Your task to perform on an android device: Do I have any events today? Image 0: 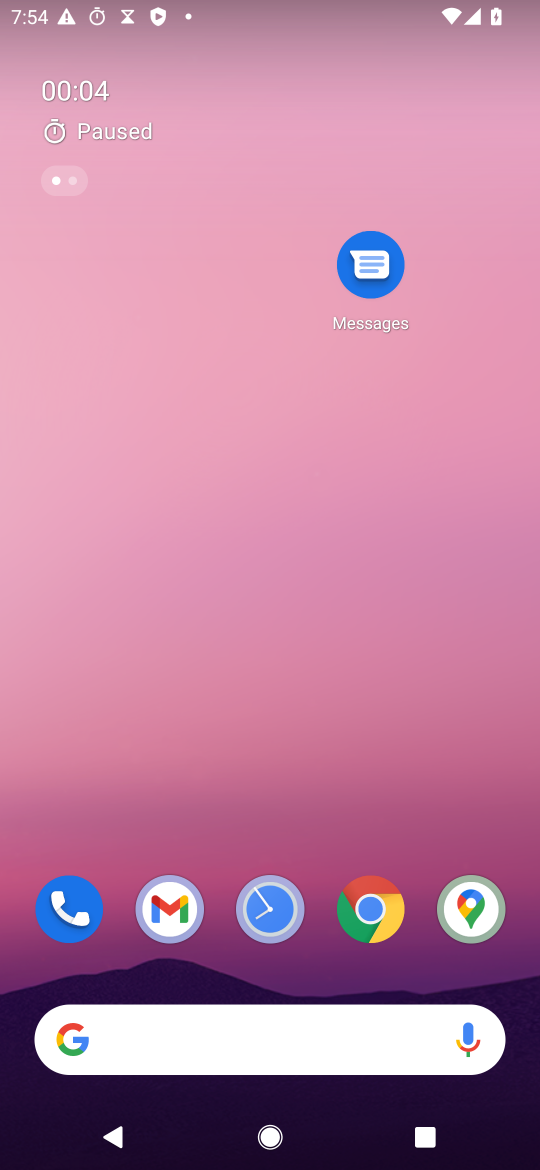
Step 0: drag from (201, 1013) to (423, 189)
Your task to perform on an android device: Do I have any events today? Image 1: 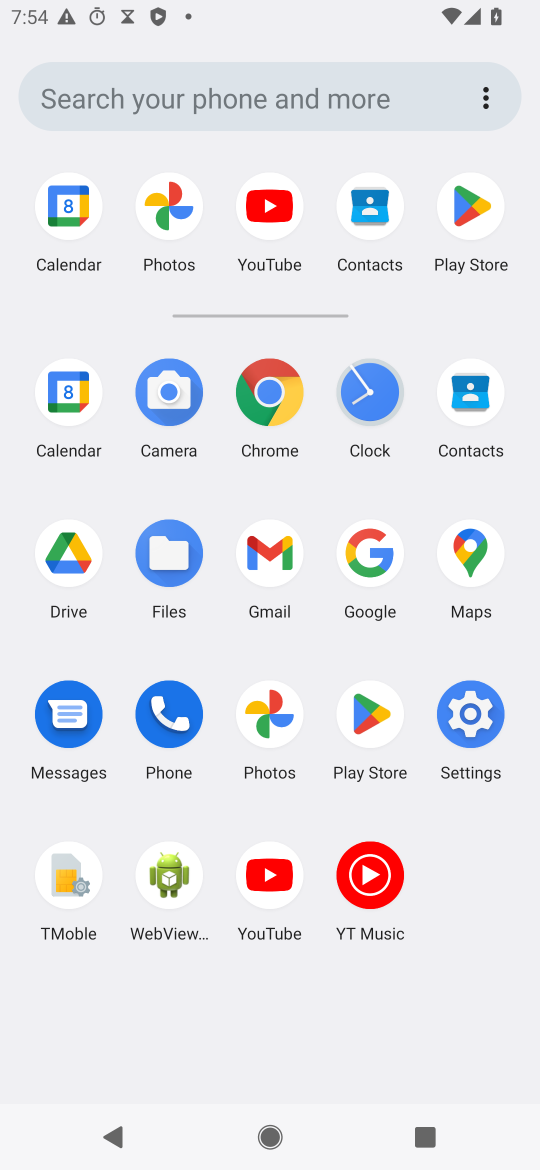
Step 1: click (70, 385)
Your task to perform on an android device: Do I have any events today? Image 2: 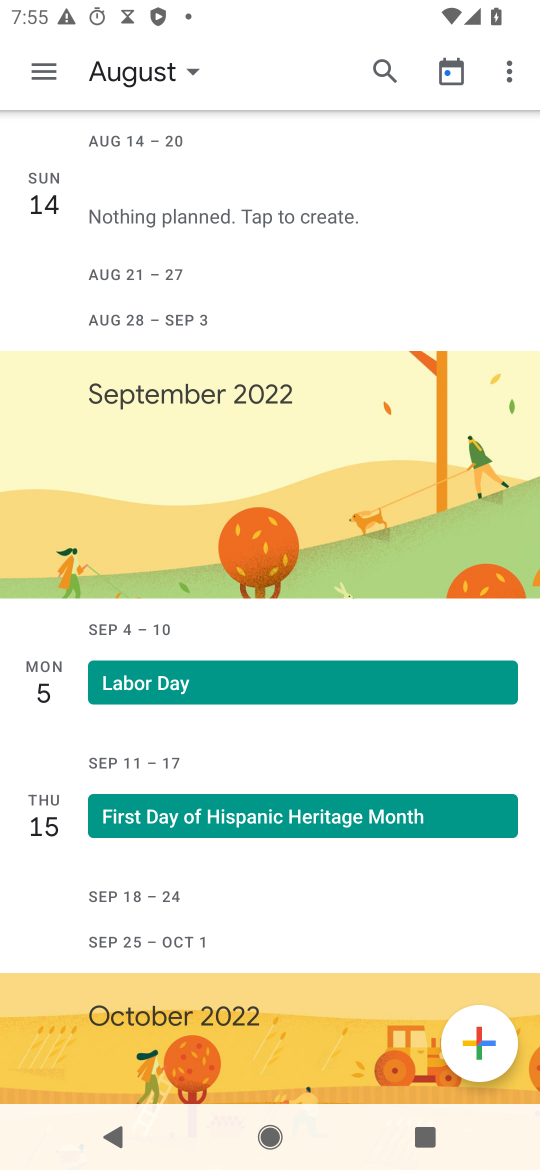
Step 2: click (134, 75)
Your task to perform on an android device: Do I have any events today? Image 3: 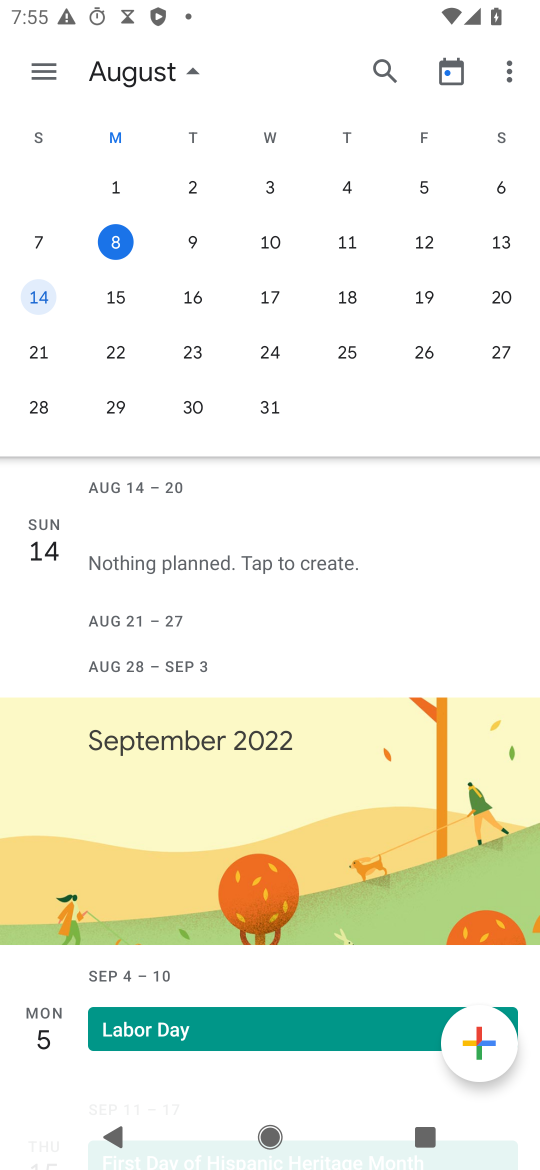
Step 3: click (115, 239)
Your task to perform on an android device: Do I have any events today? Image 4: 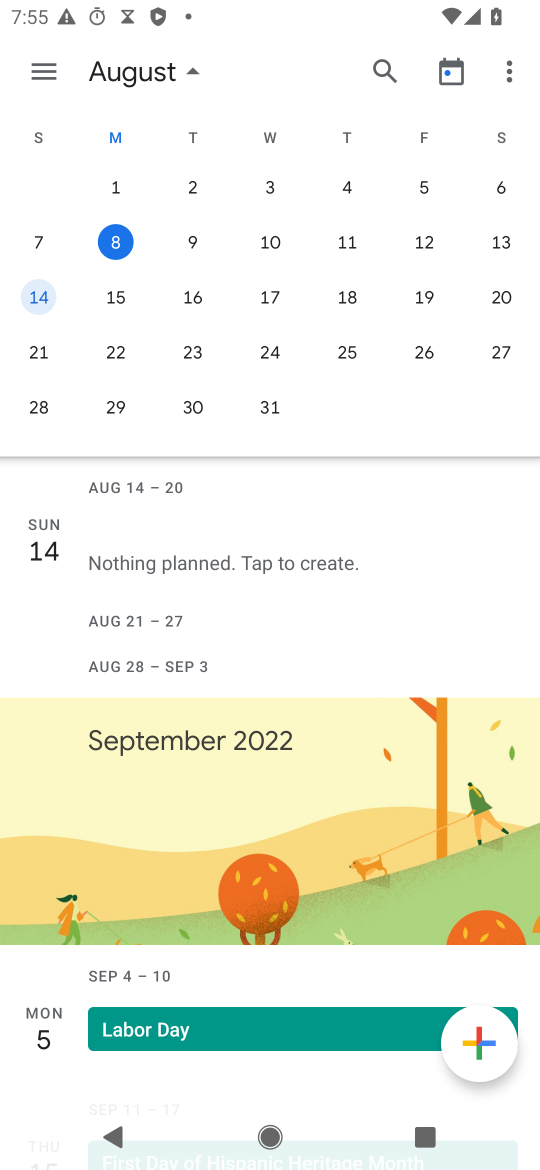
Step 4: click (114, 236)
Your task to perform on an android device: Do I have any events today? Image 5: 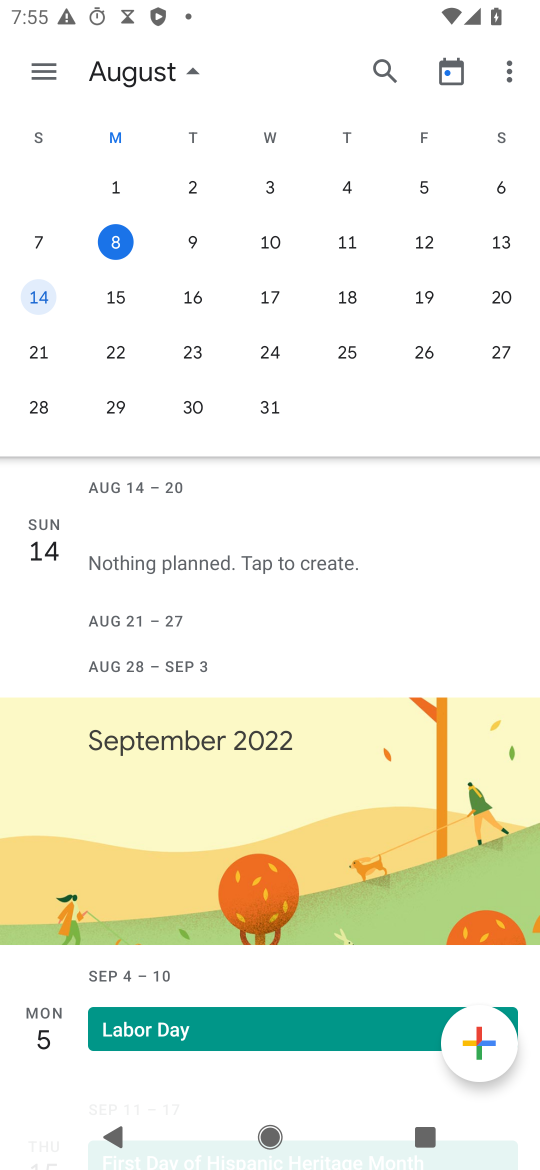
Step 5: click (140, 239)
Your task to perform on an android device: Do I have any events today? Image 6: 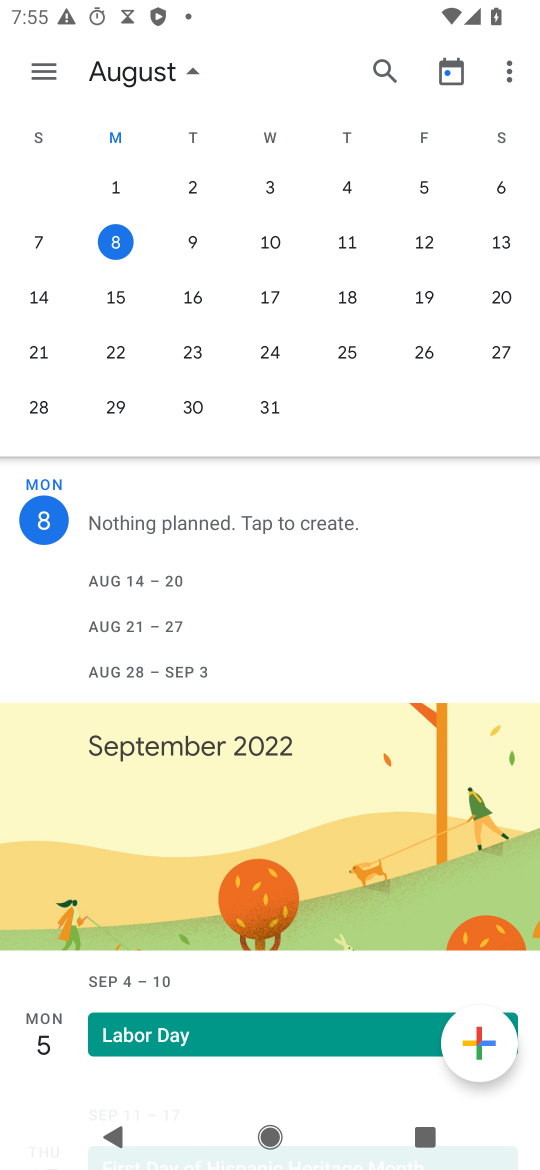
Step 6: click (40, 76)
Your task to perform on an android device: Do I have any events today? Image 7: 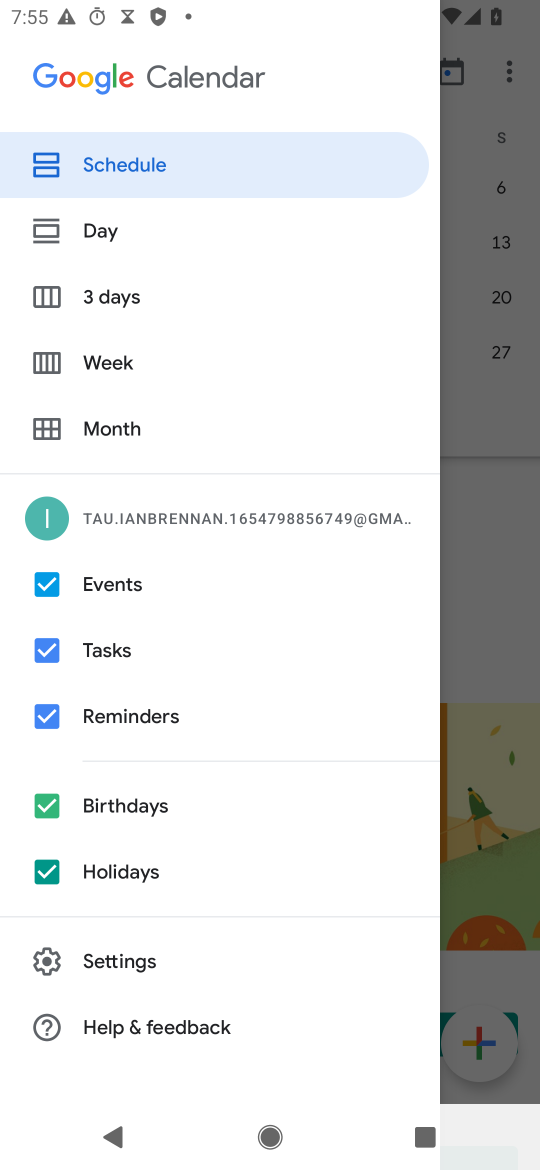
Step 7: click (119, 230)
Your task to perform on an android device: Do I have any events today? Image 8: 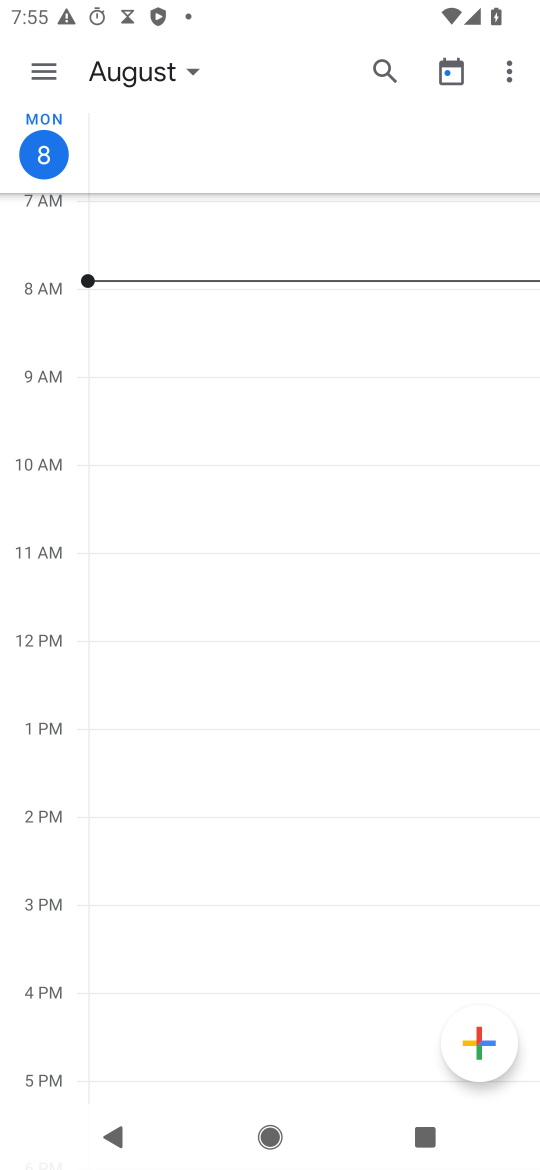
Step 8: click (46, 66)
Your task to perform on an android device: Do I have any events today? Image 9: 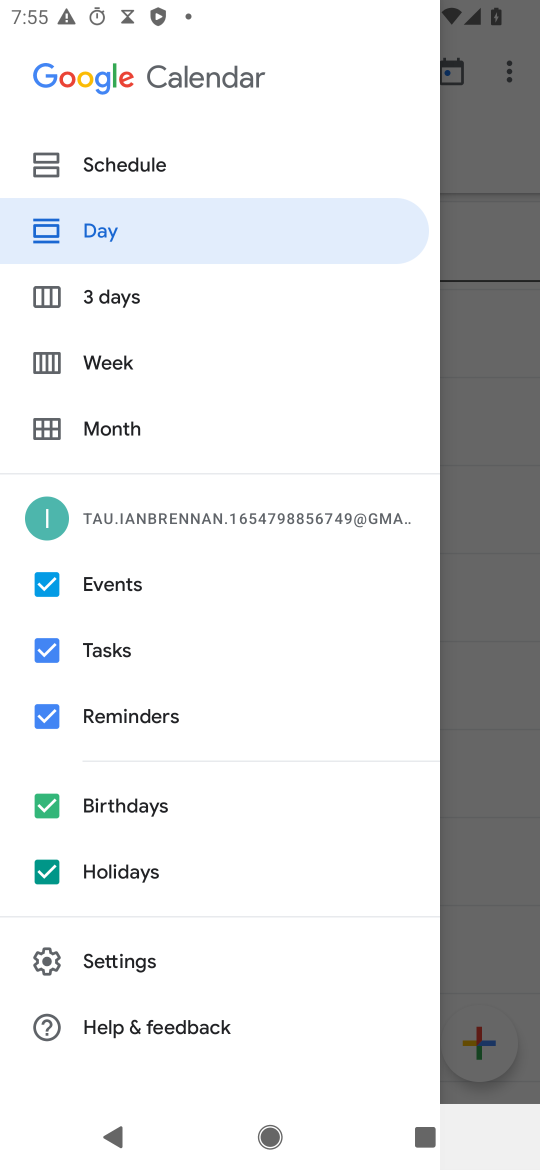
Step 9: click (145, 170)
Your task to perform on an android device: Do I have any events today? Image 10: 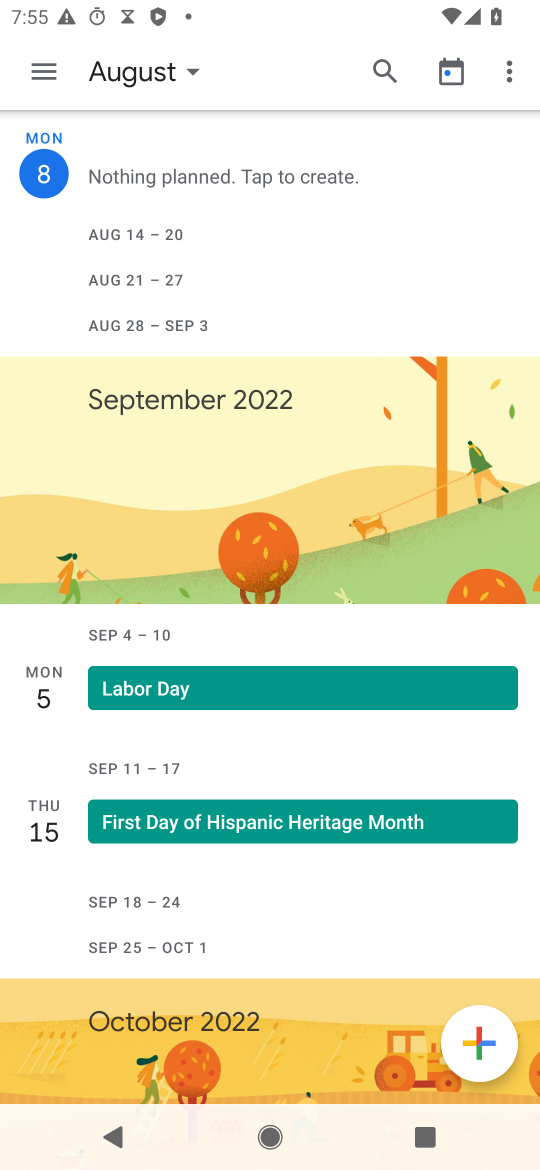
Step 10: task complete